Your task to perform on an android device: Open Youtube and go to the subscriptions tab Image 0: 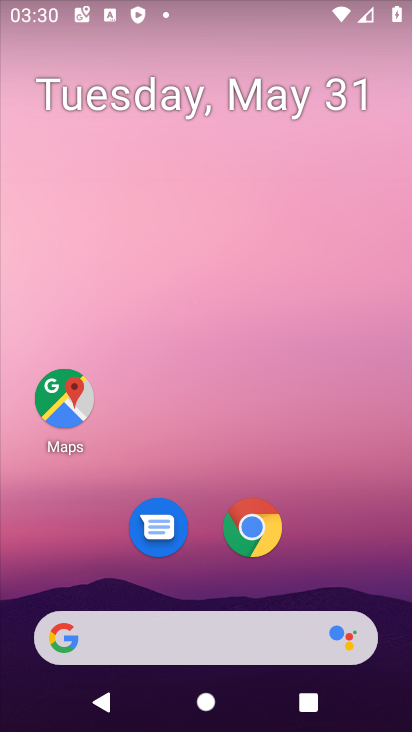
Step 0: drag from (394, 662) to (279, 98)
Your task to perform on an android device: Open Youtube and go to the subscriptions tab Image 1: 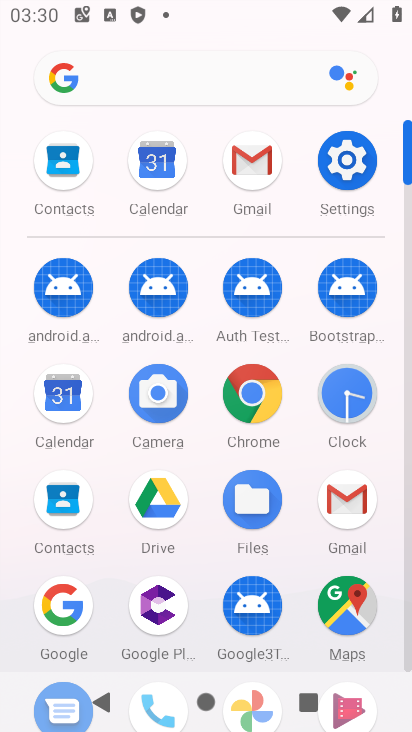
Step 1: click (408, 640)
Your task to perform on an android device: Open Youtube and go to the subscriptions tab Image 2: 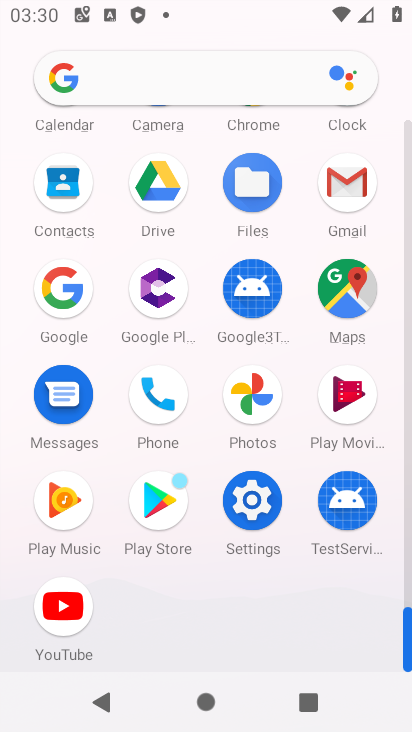
Step 2: click (60, 602)
Your task to perform on an android device: Open Youtube and go to the subscriptions tab Image 3: 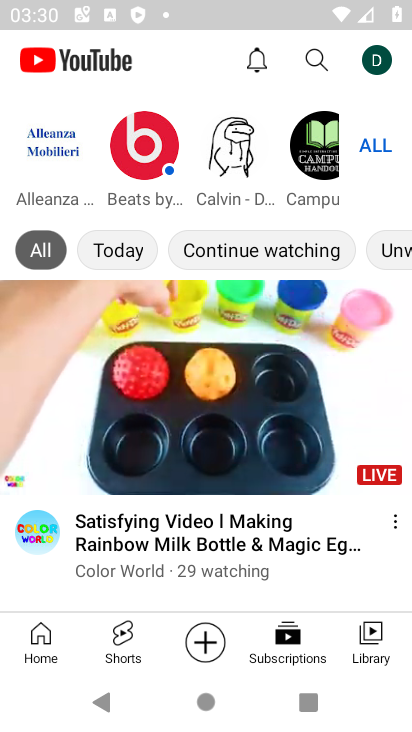
Step 3: task complete